Your task to perform on an android device: set an alarm Image 0: 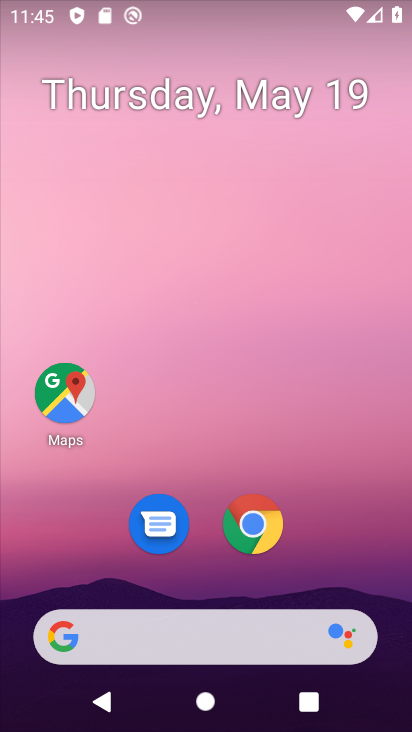
Step 0: drag from (251, 455) to (227, 54)
Your task to perform on an android device: set an alarm Image 1: 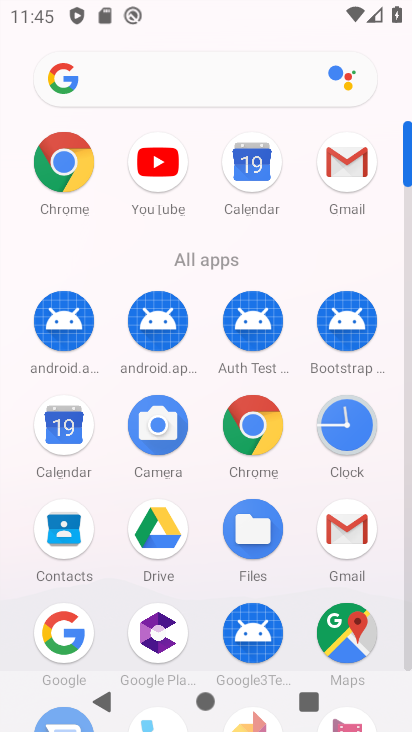
Step 1: drag from (196, 498) to (184, 139)
Your task to perform on an android device: set an alarm Image 2: 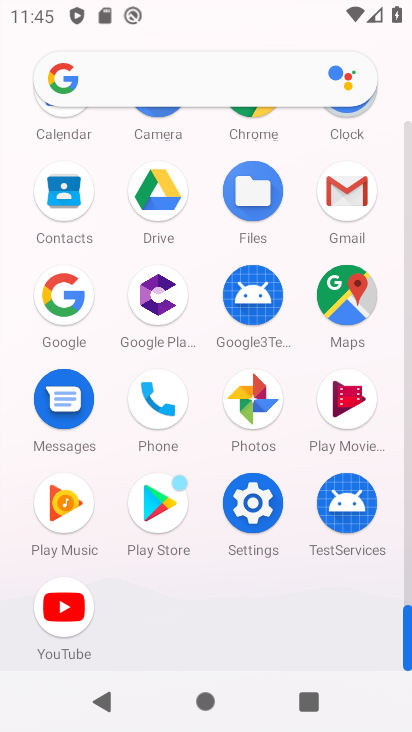
Step 2: click (253, 493)
Your task to perform on an android device: set an alarm Image 3: 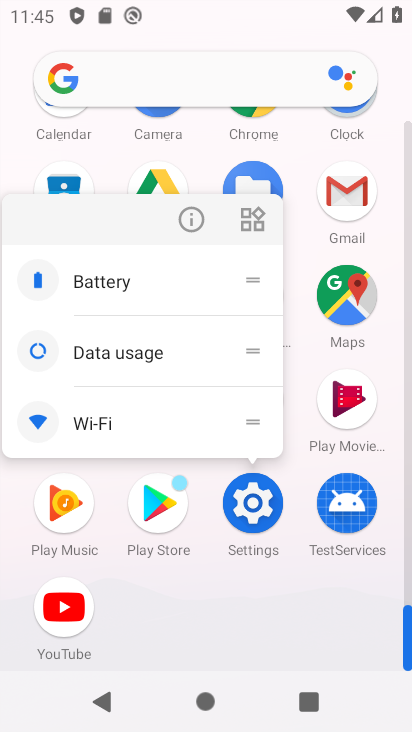
Step 3: click (254, 491)
Your task to perform on an android device: set an alarm Image 4: 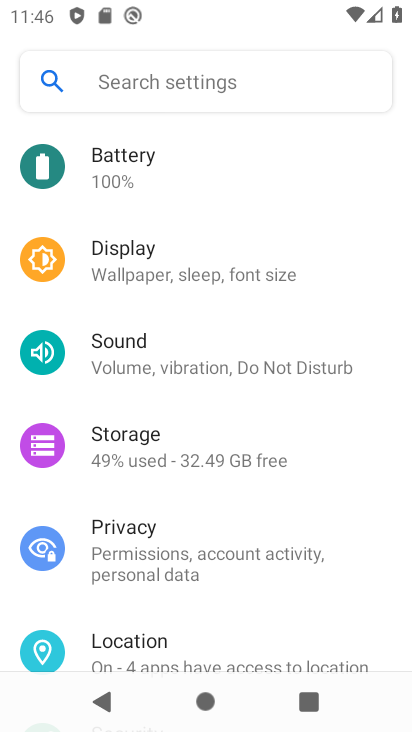
Step 4: press home button
Your task to perform on an android device: set an alarm Image 5: 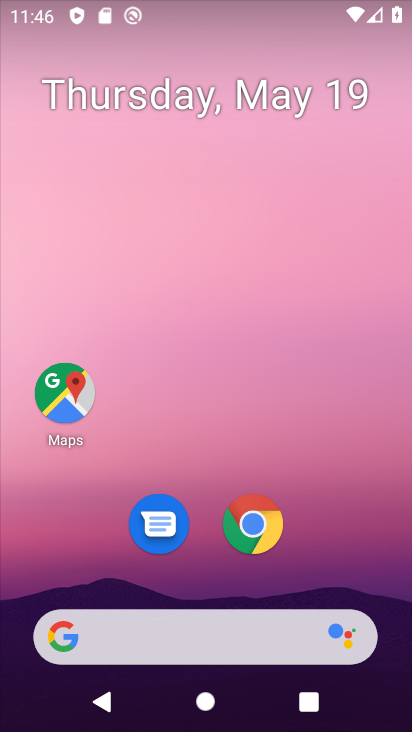
Step 5: drag from (274, 459) to (251, 0)
Your task to perform on an android device: set an alarm Image 6: 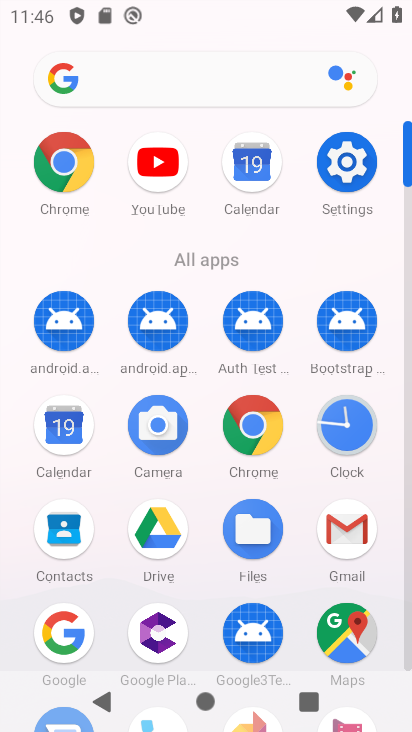
Step 6: drag from (299, 495) to (282, 203)
Your task to perform on an android device: set an alarm Image 7: 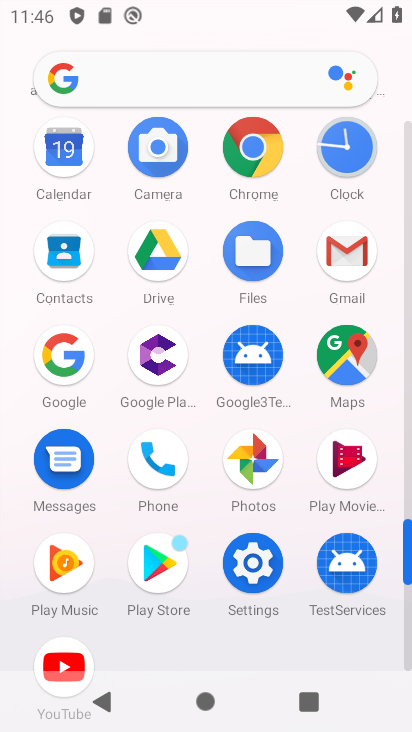
Step 7: click (338, 157)
Your task to perform on an android device: set an alarm Image 8: 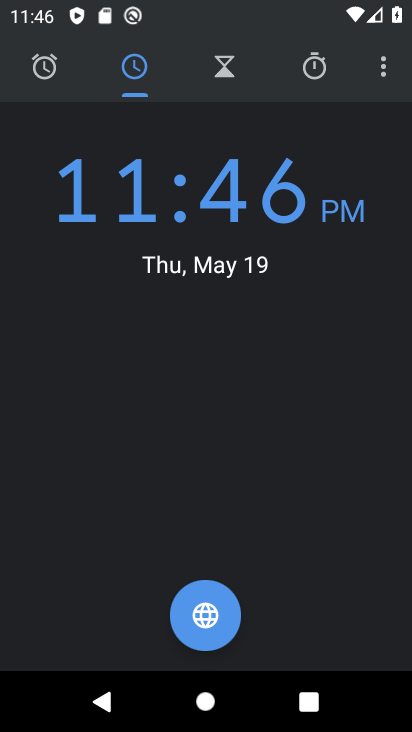
Step 8: click (46, 61)
Your task to perform on an android device: set an alarm Image 9: 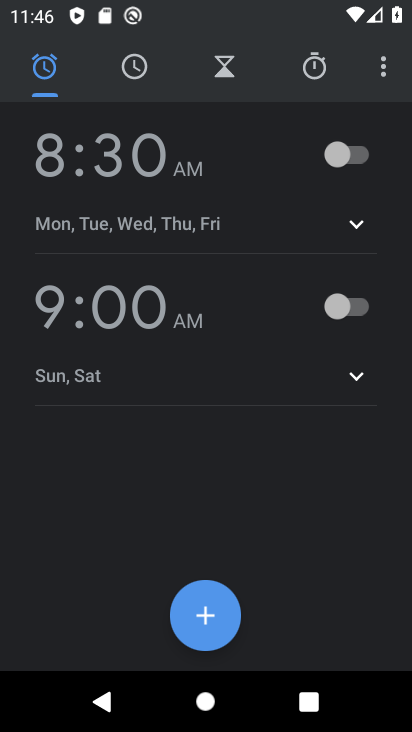
Step 9: task complete